Your task to perform on an android device: Find coffee shops on Maps Image 0: 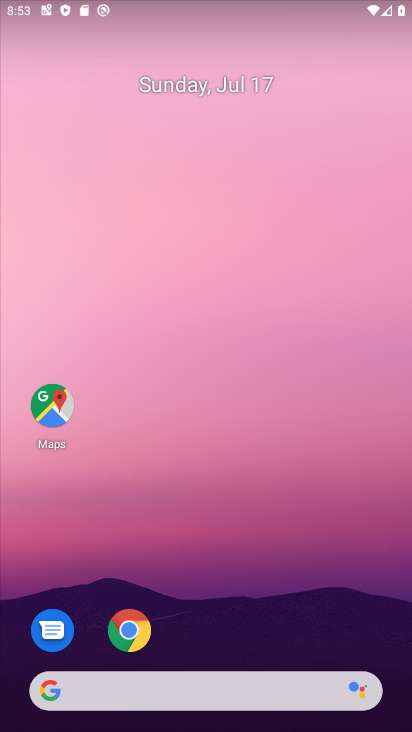
Step 0: click (57, 404)
Your task to perform on an android device: Find coffee shops on Maps Image 1: 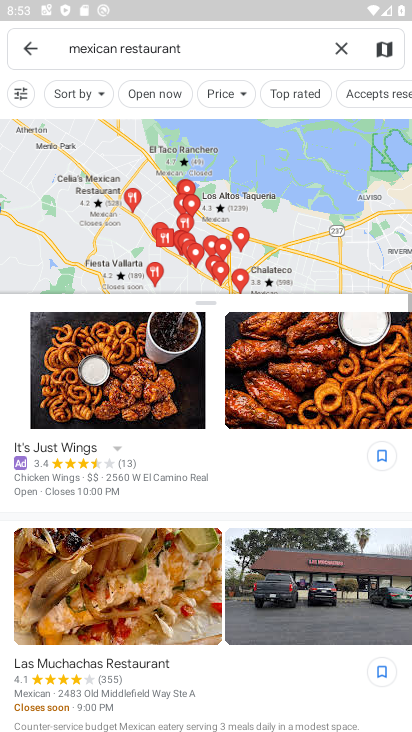
Step 1: click (344, 49)
Your task to perform on an android device: Find coffee shops on Maps Image 2: 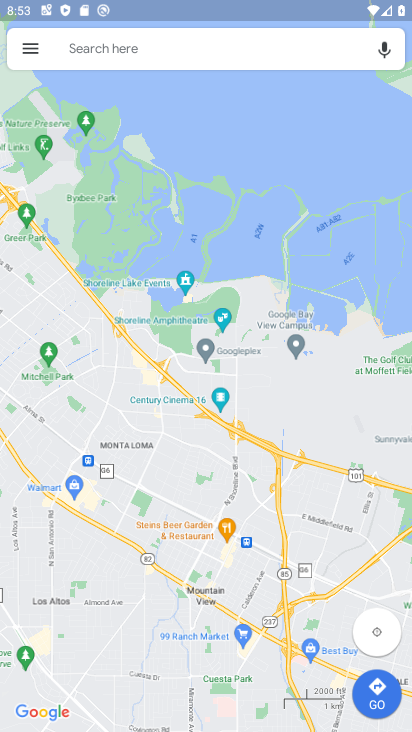
Step 2: click (256, 54)
Your task to perform on an android device: Find coffee shops on Maps Image 3: 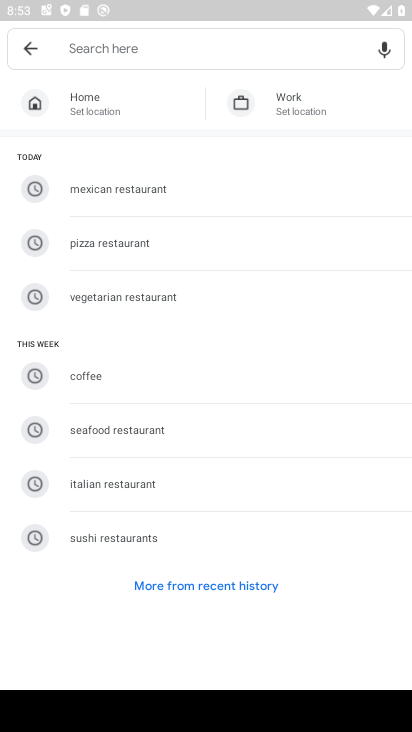
Step 3: type "coffee shop"
Your task to perform on an android device: Find coffee shops on Maps Image 4: 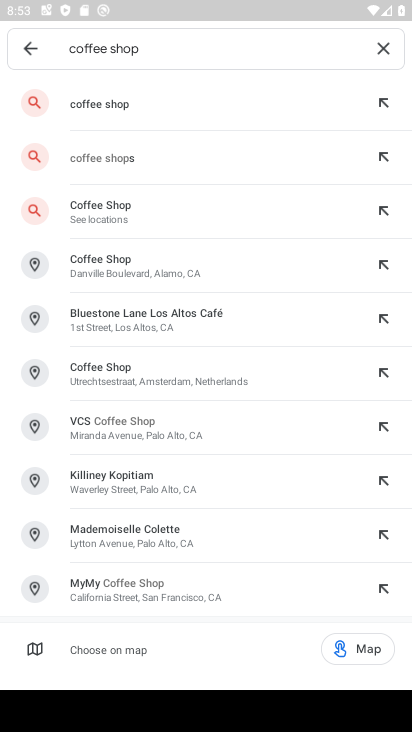
Step 4: click (210, 112)
Your task to perform on an android device: Find coffee shops on Maps Image 5: 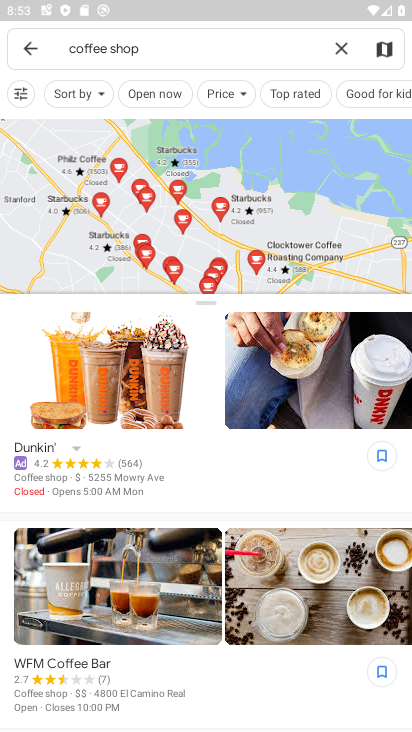
Step 5: task complete